Your task to perform on an android device: What is the news today? Image 0: 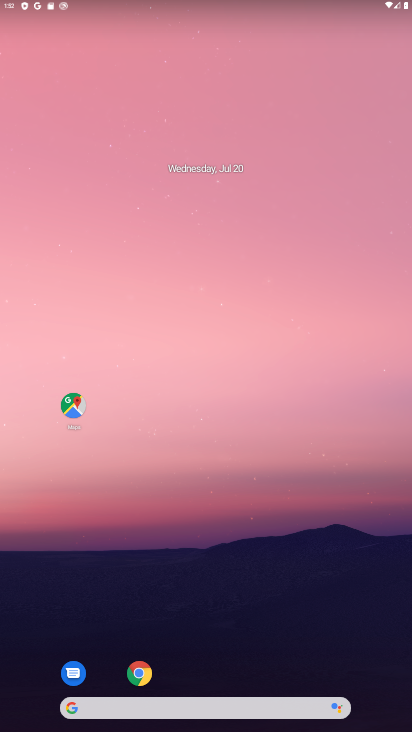
Step 0: drag from (192, 631) to (249, 251)
Your task to perform on an android device: What is the news today? Image 1: 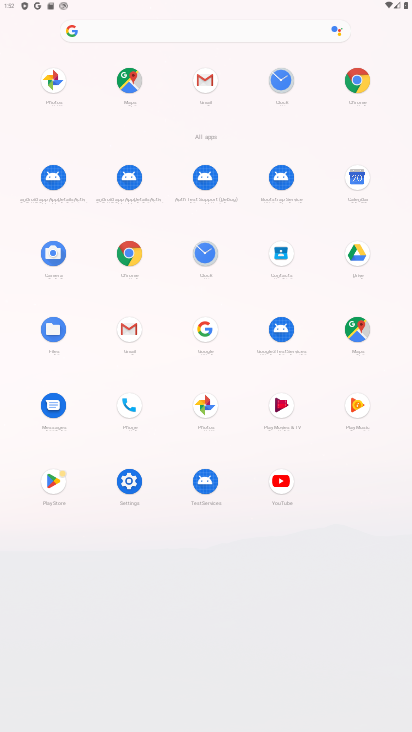
Step 1: click (200, 29)
Your task to perform on an android device: What is the news today? Image 2: 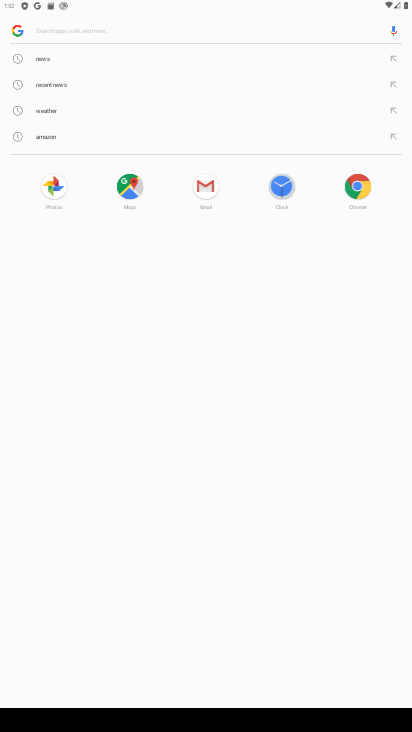
Step 2: type "news today?"
Your task to perform on an android device: What is the news today? Image 3: 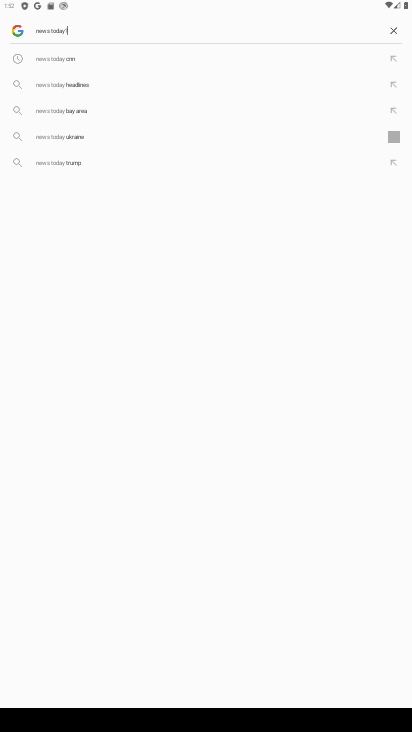
Step 3: click (52, 62)
Your task to perform on an android device: What is the news today? Image 4: 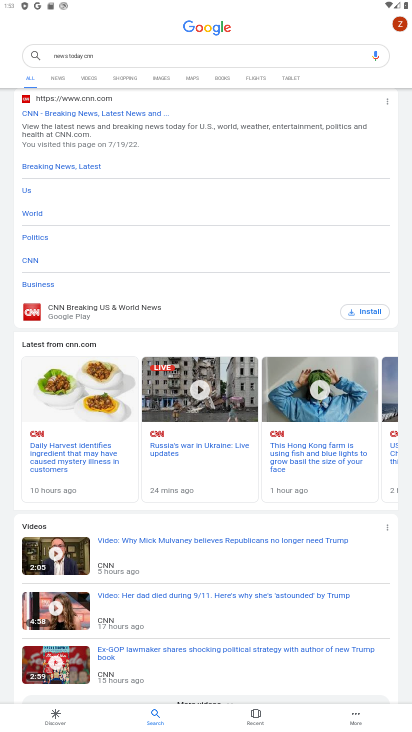
Step 4: drag from (190, 302) to (177, 583)
Your task to perform on an android device: What is the news today? Image 5: 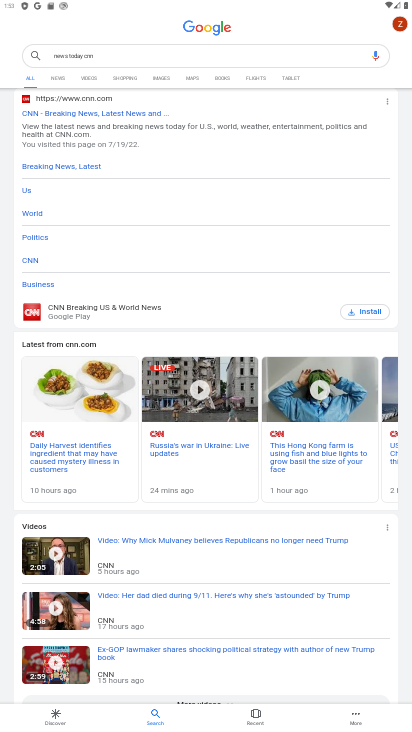
Step 5: drag from (217, 206) to (224, 470)
Your task to perform on an android device: What is the news today? Image 6: 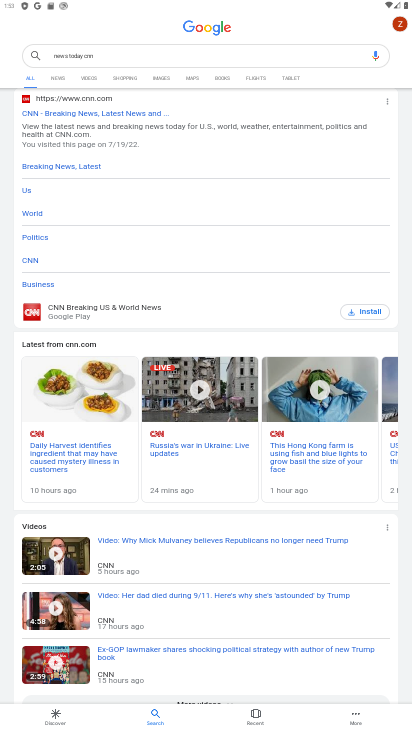
Step 6: click (90, 112)
Your task to perform on an android device: What is the news today? Image 7: 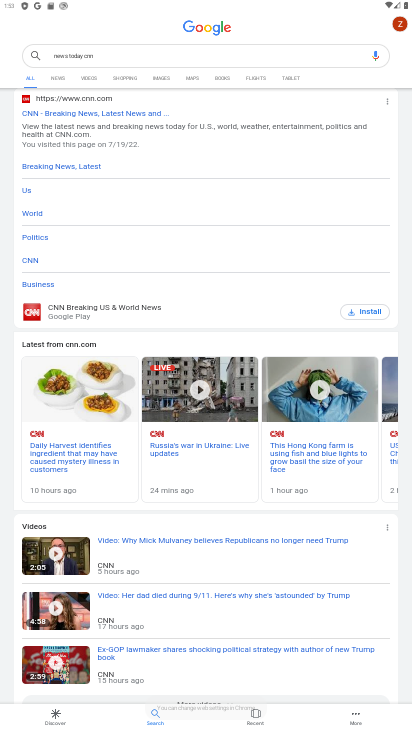
Step 7: task complete